Your task to perform on an android device: Toggle the flashlight Image 0: 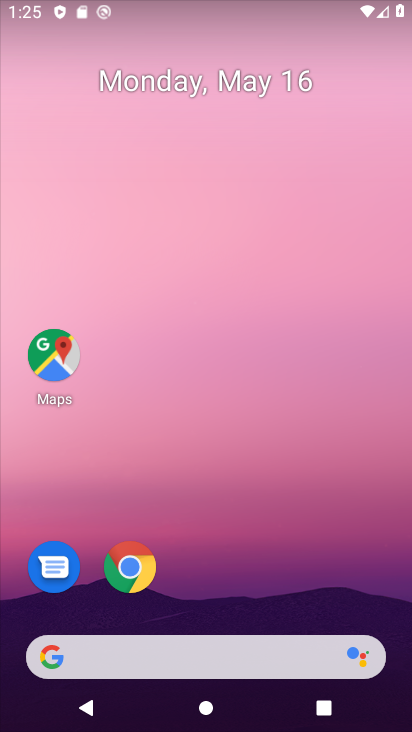
Step 0: drag from (227, 622) to (224, 100)
Your task to perform on an android device: Toggle the flashlight Image 1: 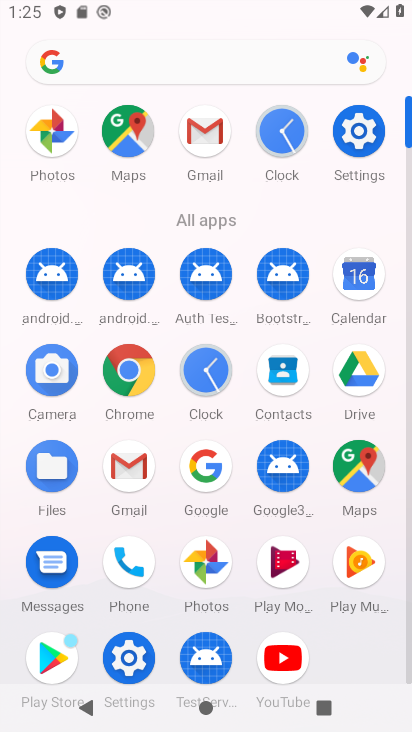
Step 1: drag from (275, 6) to (280, 310)
Your task to perform on an android device: Toggle the flashlight Image 2: 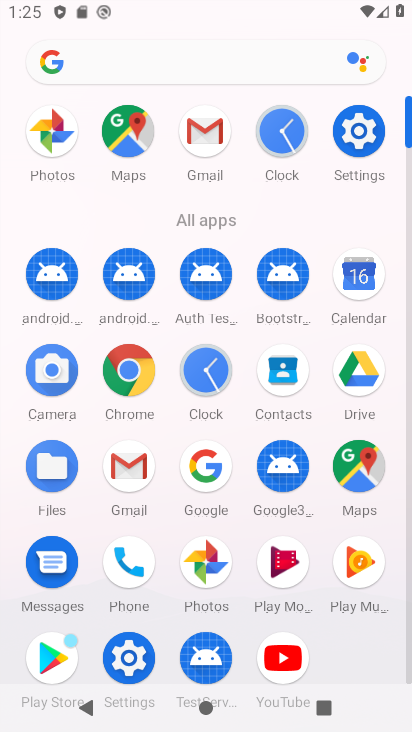
Step 2: drag from (205, 6) to (211, 713)
Your task to perform on an android device: Toggle the flashlight Image 3: 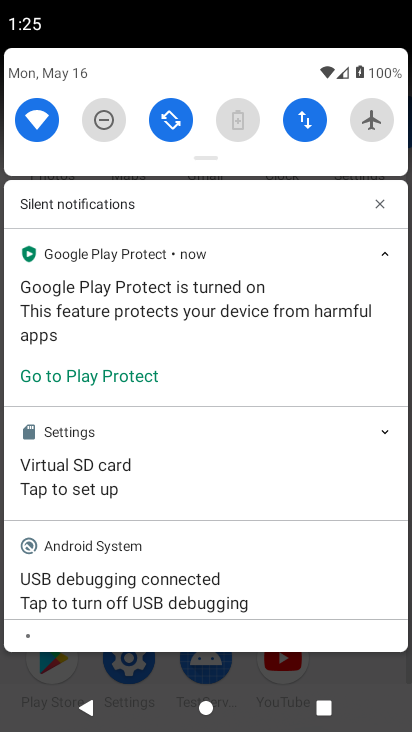
Step 3: drag from (204, 142) to (226, 478)
Your task to perform on an android device: Toggle the flashlight Image 4: 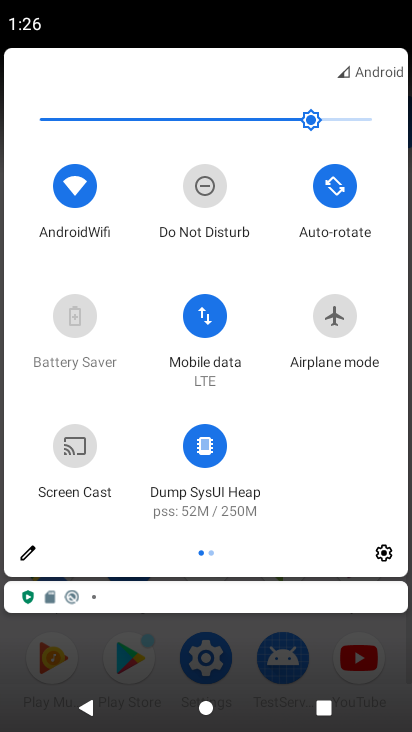
Step 4: drag from (387, 395) to (44, 419)
Your task to perform on an android device: Toggle the flashlight Image 5: 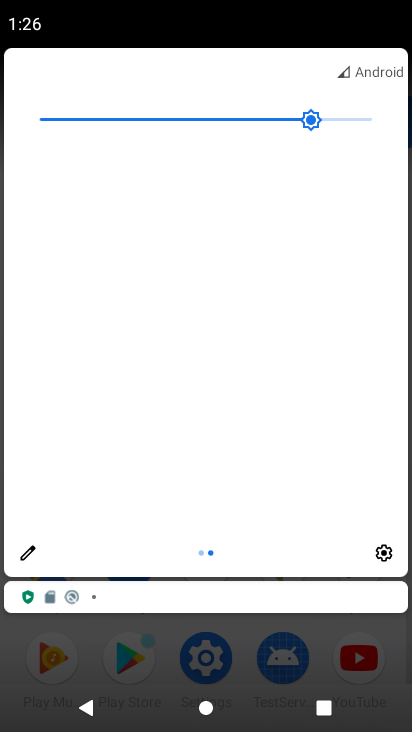
Step 5: click (34, 550)
Your task to perform on an android device: Toggle the flashlight Image 6: 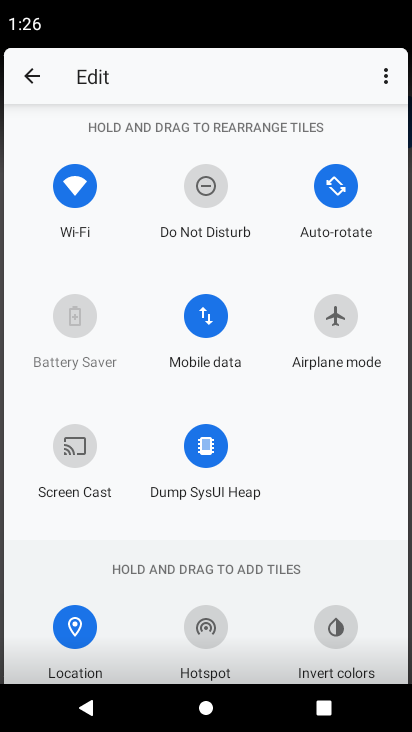
Step 6: task complete